Your task to perform on an android device: turn on bluetooth scan Image 0: 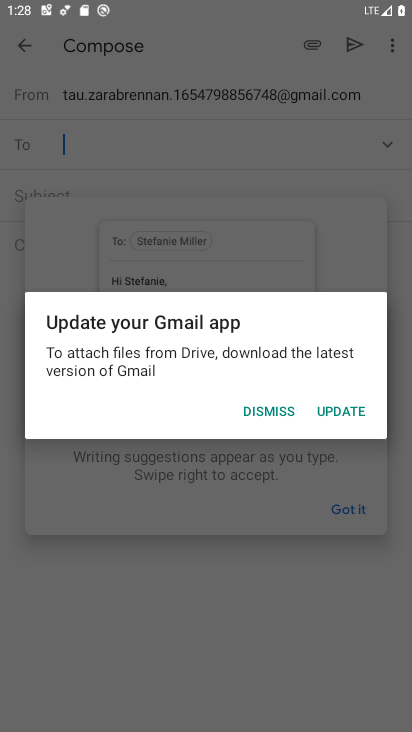
Step 0: press home button
Your task to perform on an android device: turn on bluetooth scan Image 1: 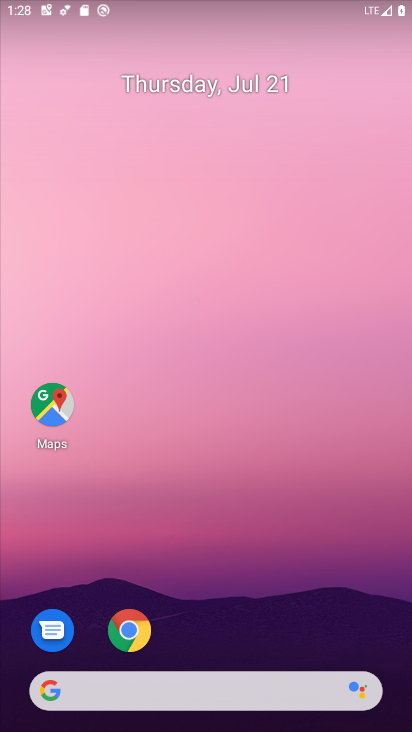
Step 1: drag from (195, 639) to (410, 106)
Your task to perform on an android device: turn on bluetooth scan Image 2: 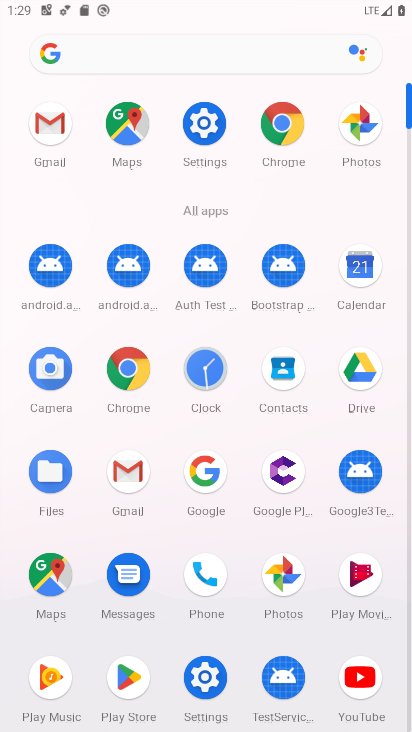
Step 2: click (207, 674)
Your task to perform on an android device: turn on bluetooth scan Image 3: 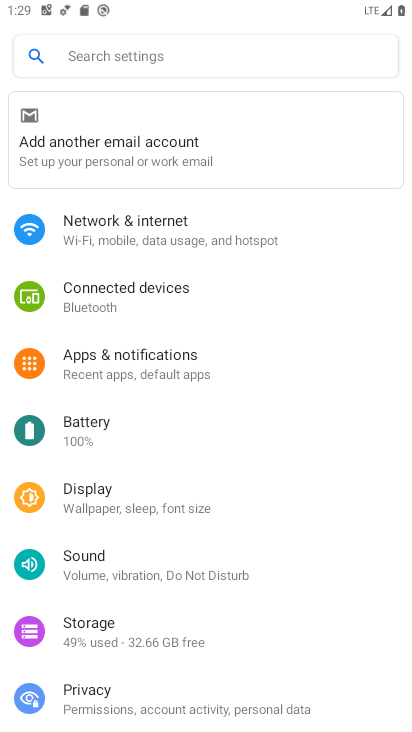
Step 3: drag from (46, 597) to (40, 423)
Your task to perform on an android device: turn on bluetooth scan Image 4: 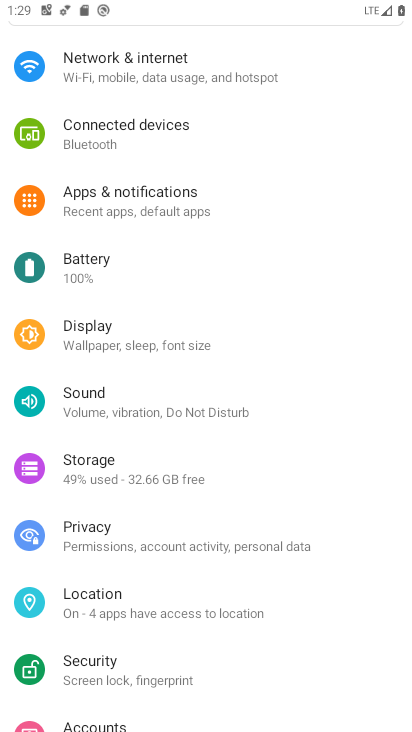
Step 4: click (123, 594)
Your task to perform on an android device: turn on bluetooth scan Image 5: 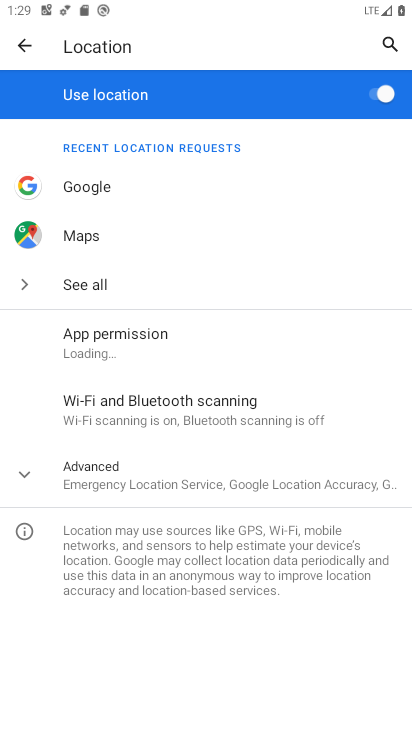
Step 5: click (105, 457)
Your task to perform on an android device: turn on bluetooth scan Image 6: 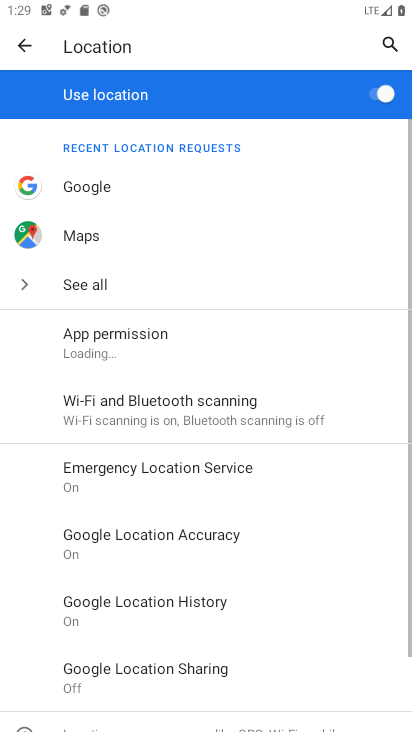
Step 6: click (85, 390)
Your task to perform on an android device: turn on bluetooth scan Image 7: 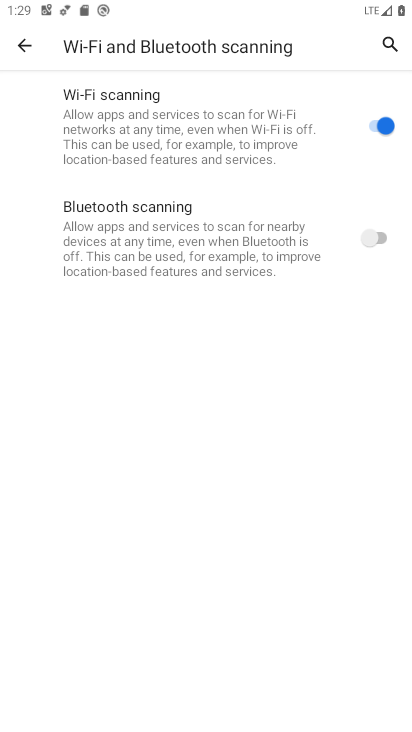
Step 7: click (78, 218)
Your task to perform on an android device: turn on bluetooth scan Image 8: 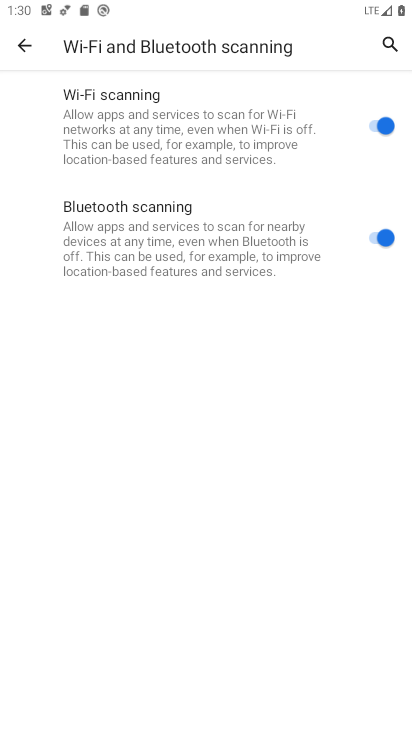
Step 8: task complete